Your task to perform on an android device: check android version Image 0: 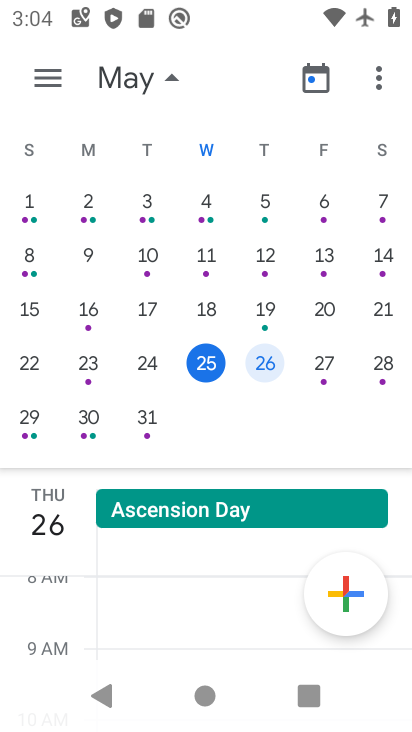
Step 0: press home button
Your task to perform on an android device: check android version Image 1: 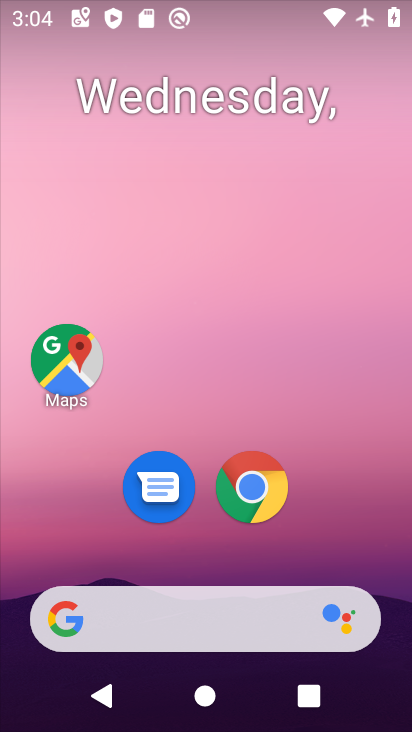
Step 1: drag from (375, 492) to (290, 0)
Your task to perform on an android device: check android version Image 2: 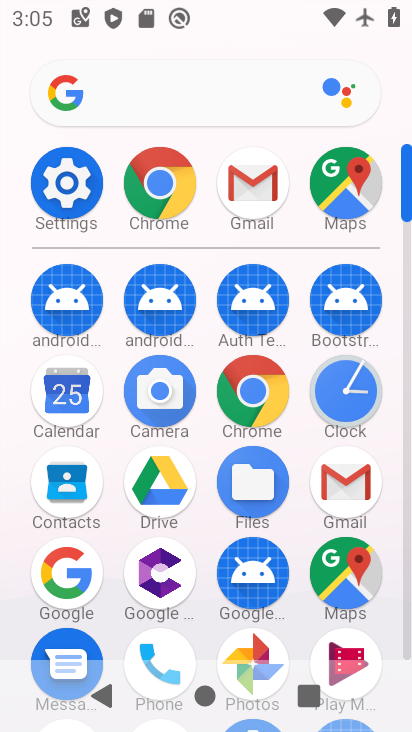
Step 2: click (62, 190)
Your task to perform on an android device: check android version Image 3: 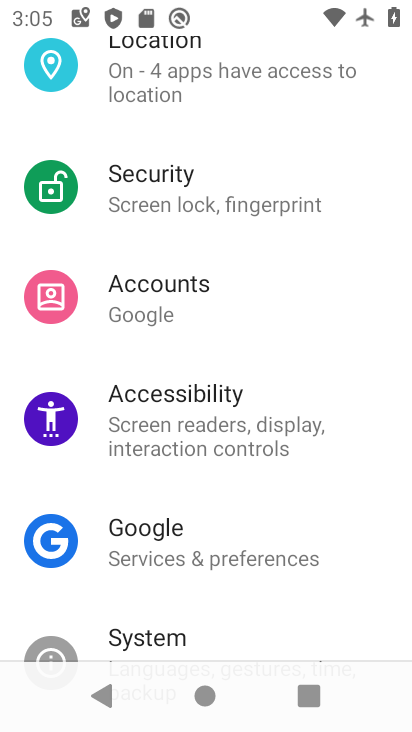
Step 3: drag from (218, 544) to (264, 89)
Your task to perform on an android device: check android version Image 4: 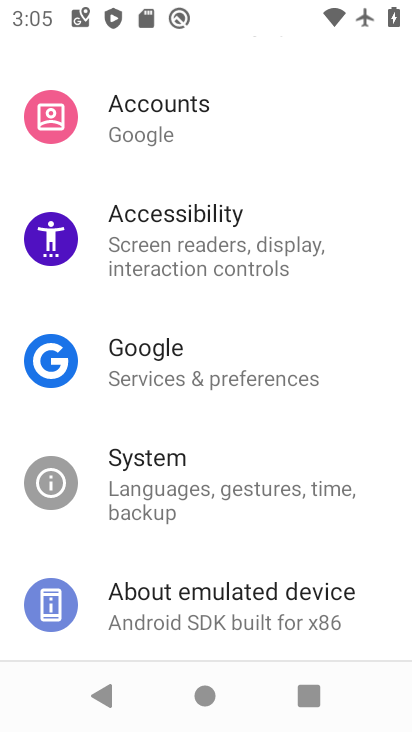
Step 4: drag from (237, 476) to (292, 170)
Your task to perform on an android device: check android version Image 5: 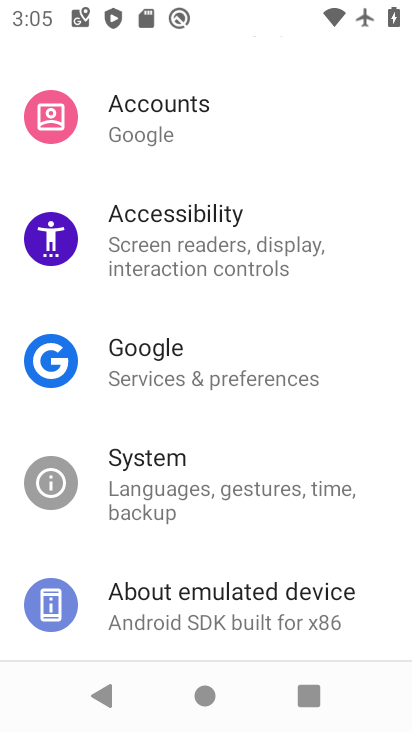
Step 5: drag from (309, 204) to (325, 612)
Your task to perform on an android device: check android version Image 6: 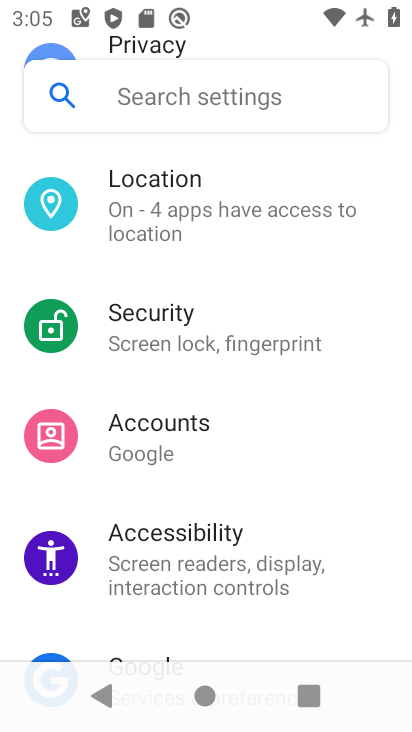
Step 6: drag from (325, 611) to (330, 145)
Your task to perform on an android device: check android version Image 7: 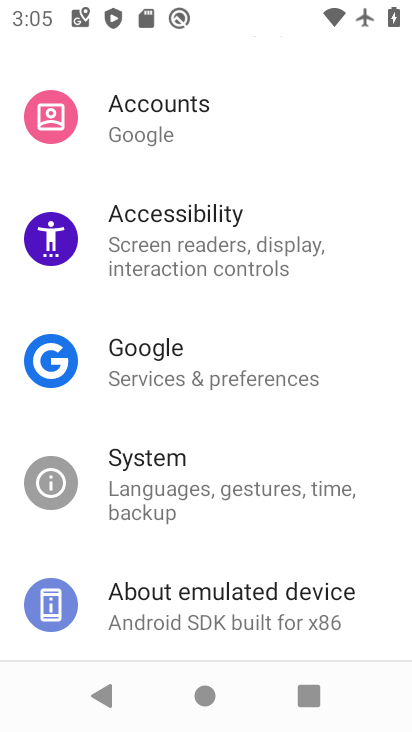
Step 7: drag from (281, 602) to (326, 162)
Your task to perform on an android device: check android version Image 8: 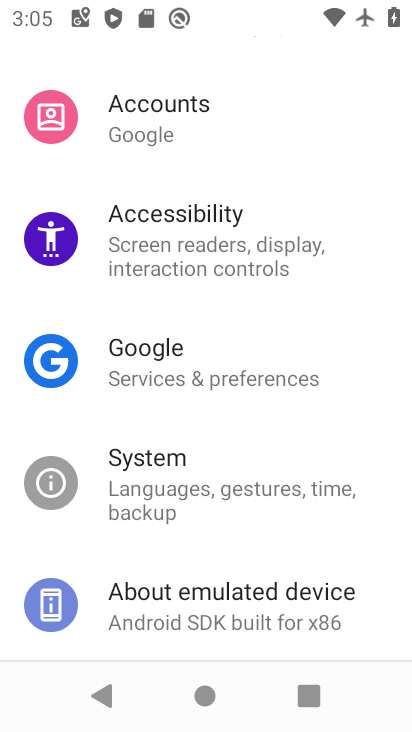
Step 8: click (223, 594)
Your task to perform on an android device: check android version Image 9: 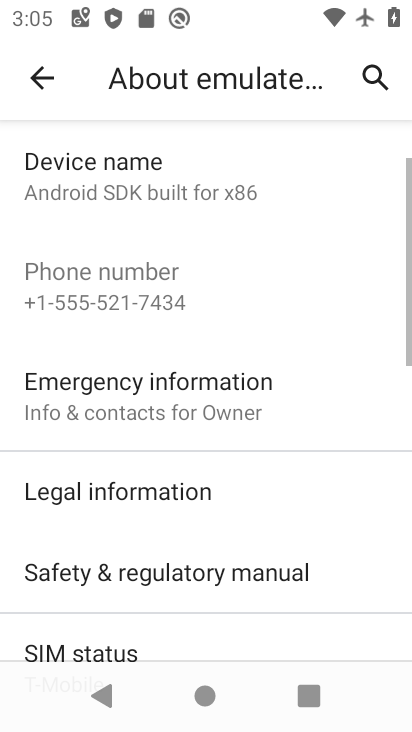
Step 9: drag from (238, 478) to (291, 170)
Your task to perform on an android device: check android version Image 10: 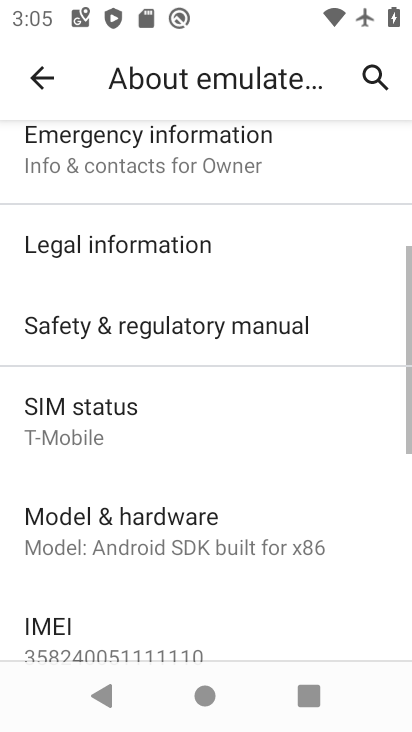
Step 10: drag from (164, 587) to (183, 166)
Your task to perform on an android device: check android version Image 11: 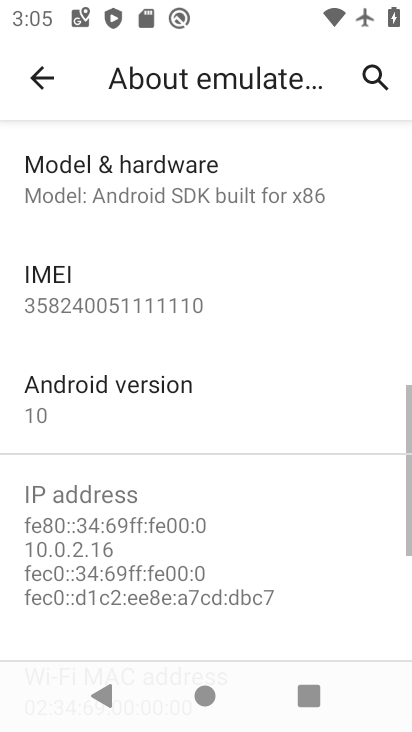
Step 11: click (131, 427)
Your task to perform on an android device: check android version Image 12: 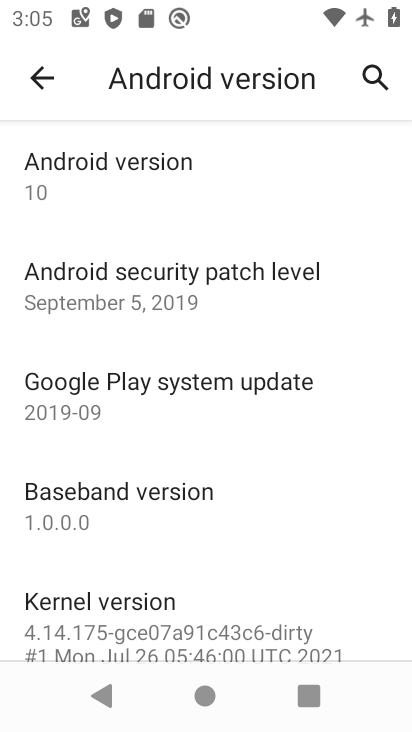
Step 12: task complete